Your task to perform on an android device: visit the assistant section in the google photos Image 0: 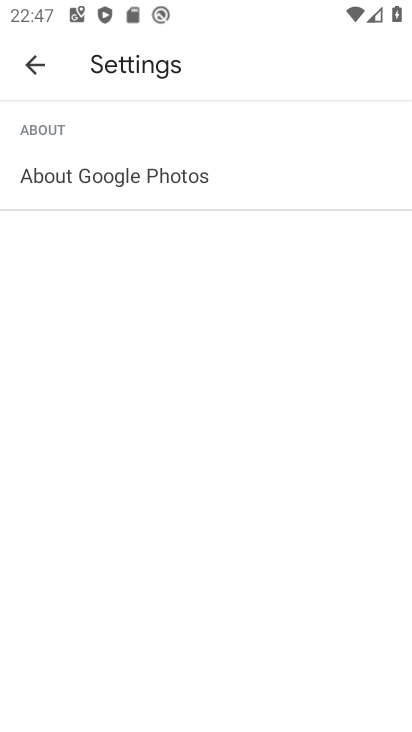
Step 0: press home button
Your task to perform on an android device: visit the assistant section in the google photos Image 1: 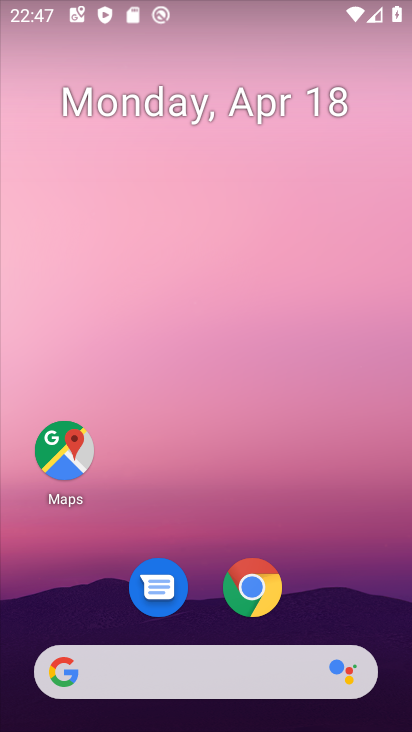
Step 1: drag from (336, 572) to (353, 109)
Your task to perform on an android device: visit the assistant section in the google photos Image 2: 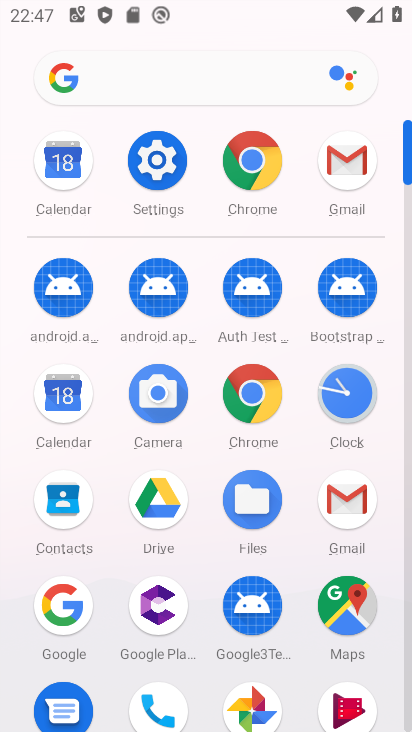
Step 2: click (250, 693)
Your task to perform on an android device: visit the assistant section in the google photos Image 3: 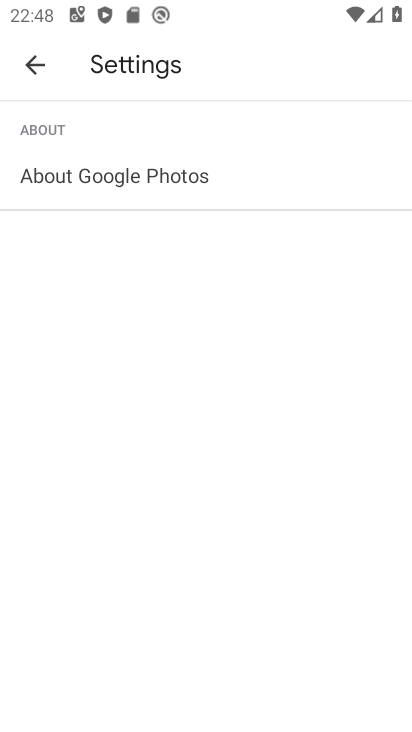
Step 3: click (33, 74)
Your task to perform on an android device: visit the assistant section in the google photos Image 4: 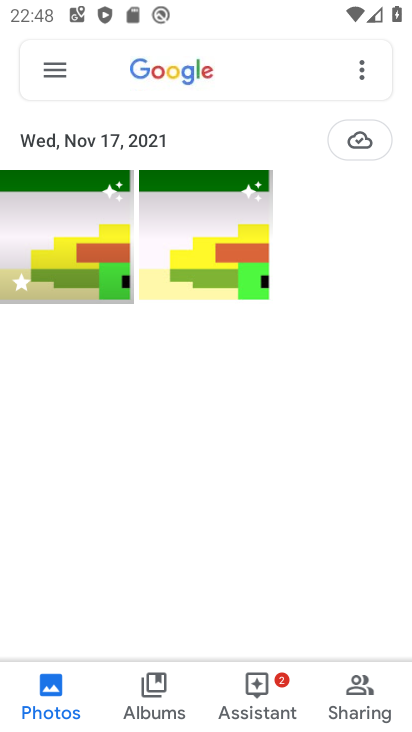
Step 4: click (276, 700)
Your task to perform on an android device: visit the assistant section in the google photos Image 5: 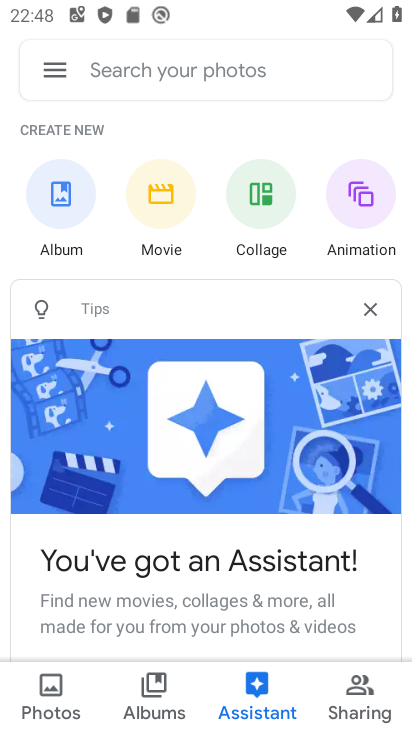
Step 5: task complete